Your task to perform on an android device: What is the news today? Image 0: 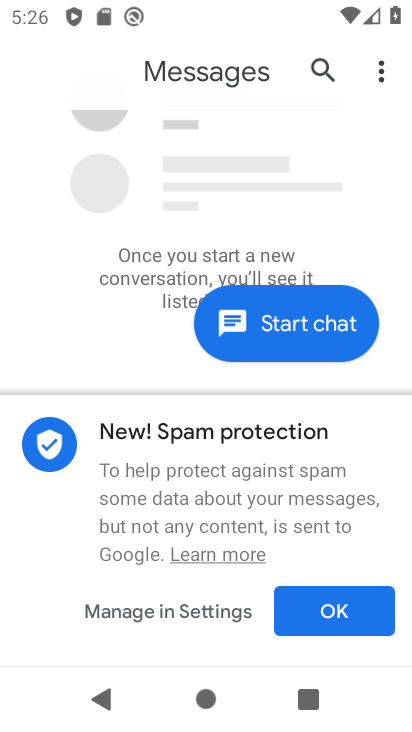
Step 0: press back button
Your task to perform on an android device: What is the news today? Image 1: 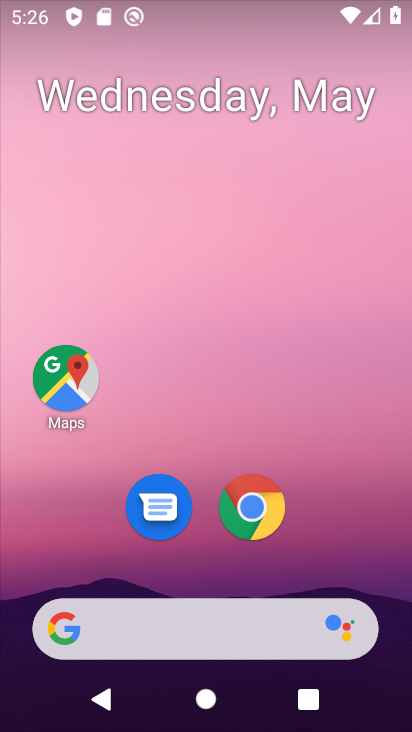
Step 1: drag from (303, 571) to (95, 37)
Your task to perform on an android device: What is the news today? Image 2: 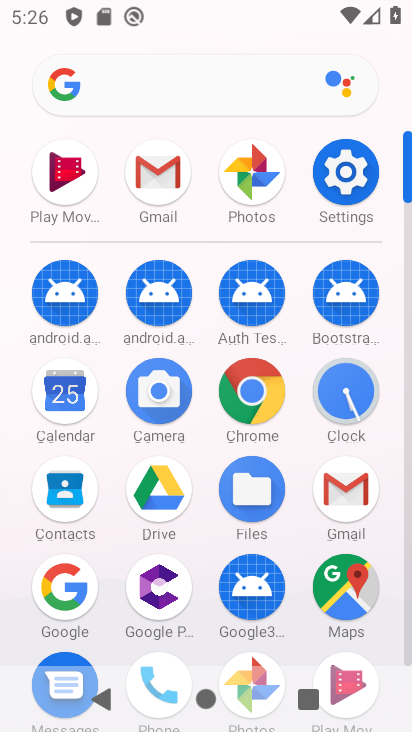
Step 2: click (58, 582)
Your task to perform on an android device: What is the news today? Image 3: 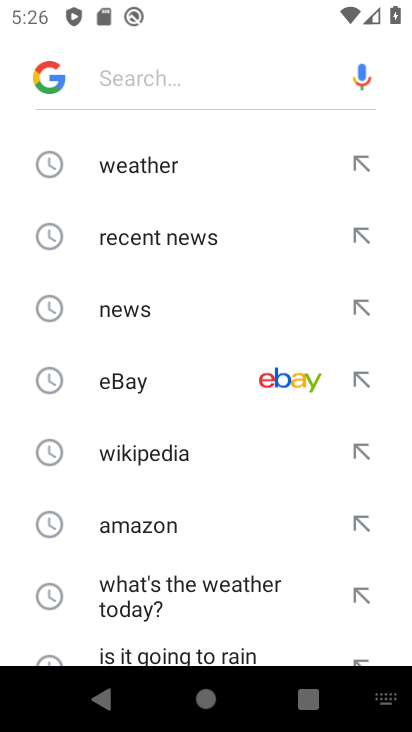
Step 3: click (170, 97)
Your task to perform on an android device: What is the news today? Image 4: 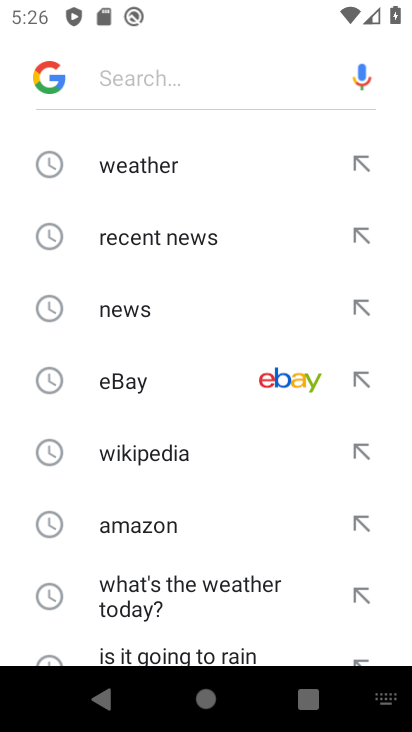
Step 4: type "news today"
Your task to perform on an android device: What is the news today? Image 5: 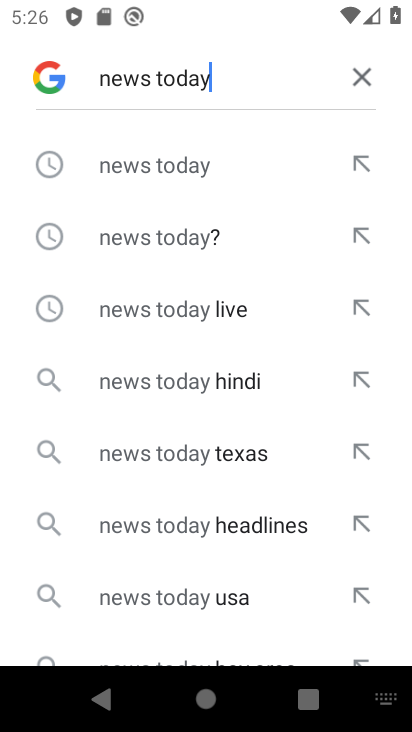
Step 5: click (183, 239)
Your task to perform on an android device: What is the news today? Image 6: 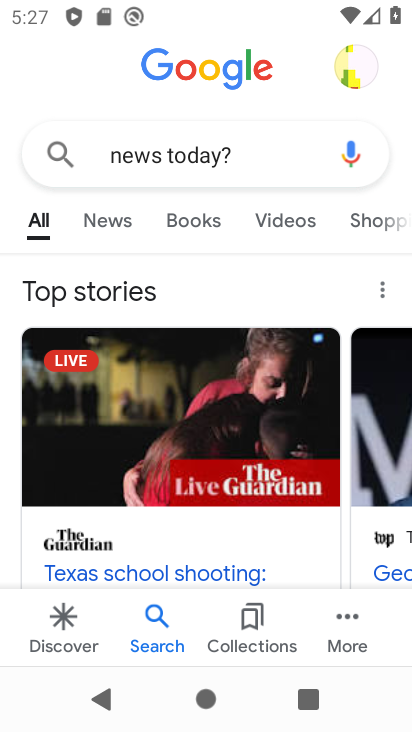
Step 6: task complete